Your task to perform on an android device: View the shopping cart on walmart. Add macbook air to the cart on walmart Image 0: 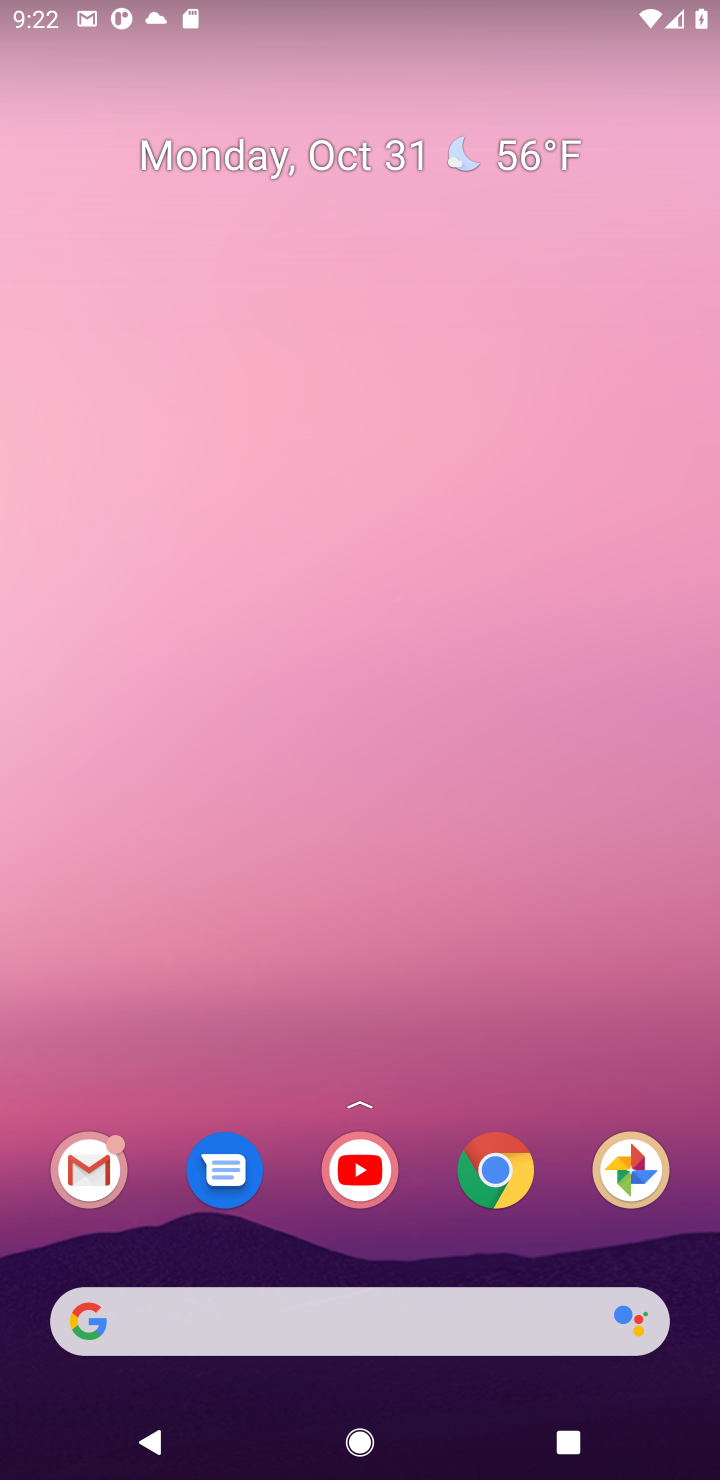
Step 0: click (513, 1203)
Your task to perform on an android device: View the shopping cart on walmart. Add macbook air to the cart on walmart Image 1: 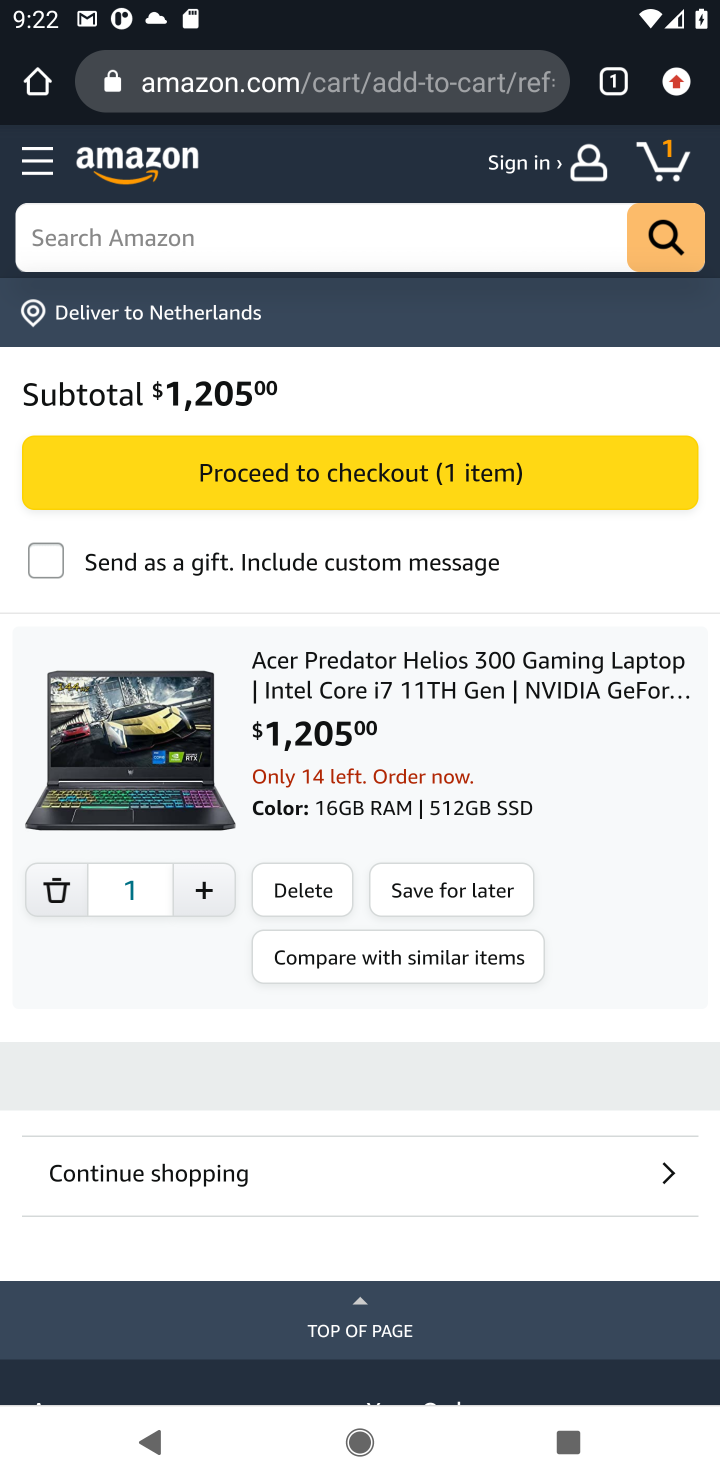
Step 1: click (194, 86)
Your task to perform on an android device: View the shopping cart on walmart. Add macbook air to the cart on walmart Image 2: 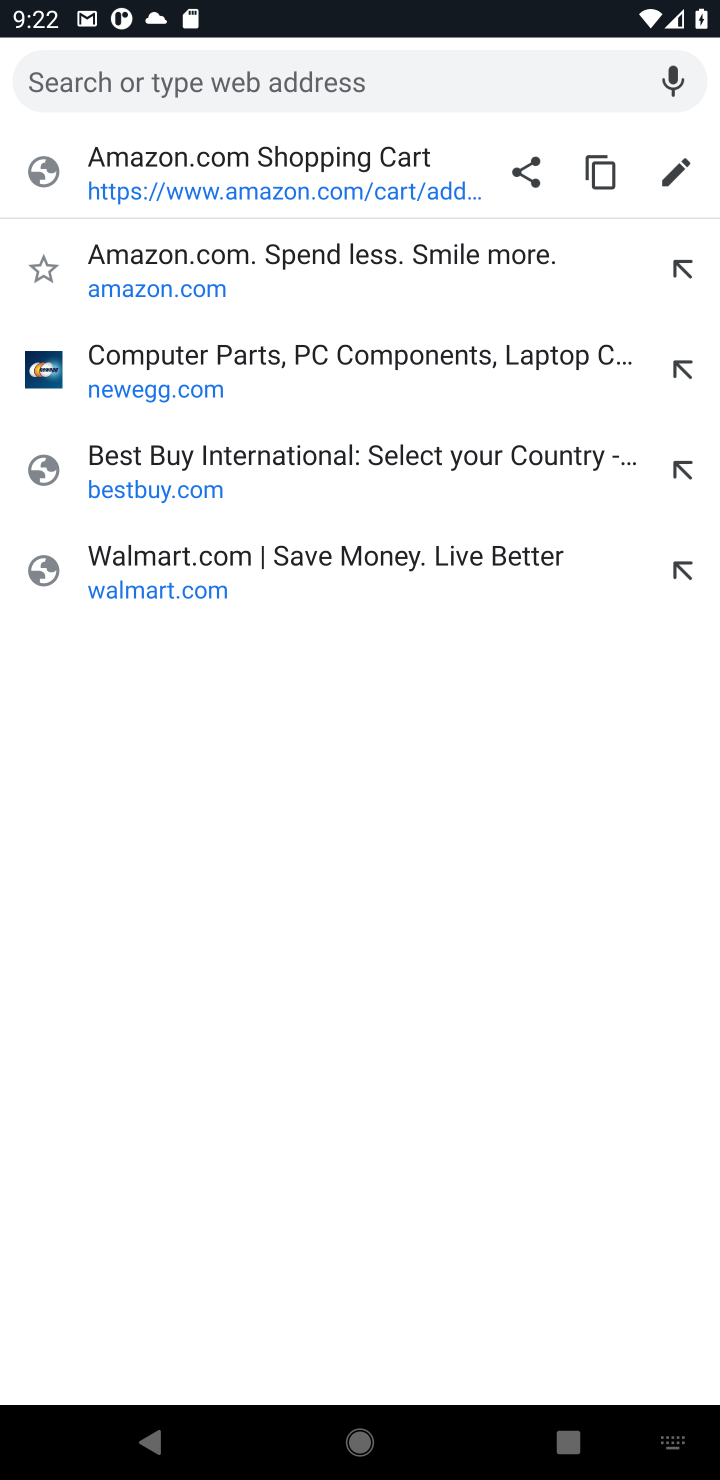
Step 2: type "walmart"
Your task to perform on an android device: View the shopping cart on walmart. Add macbook air to the cart on walmart Image 3: 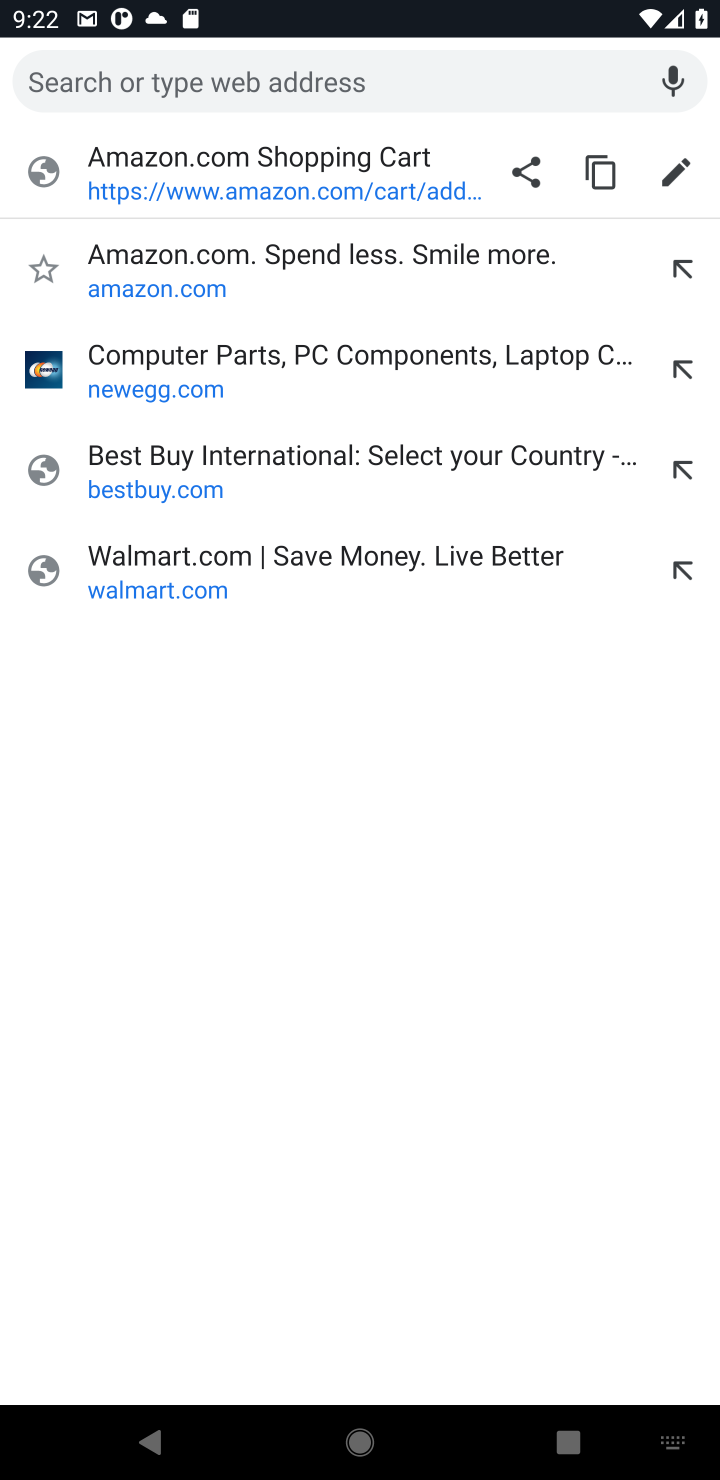
Step 3: click (109, 545)
Your task to perform on an android device: View the shopping cart on walmart. Add macbook air to the cart on walmart Image 4: 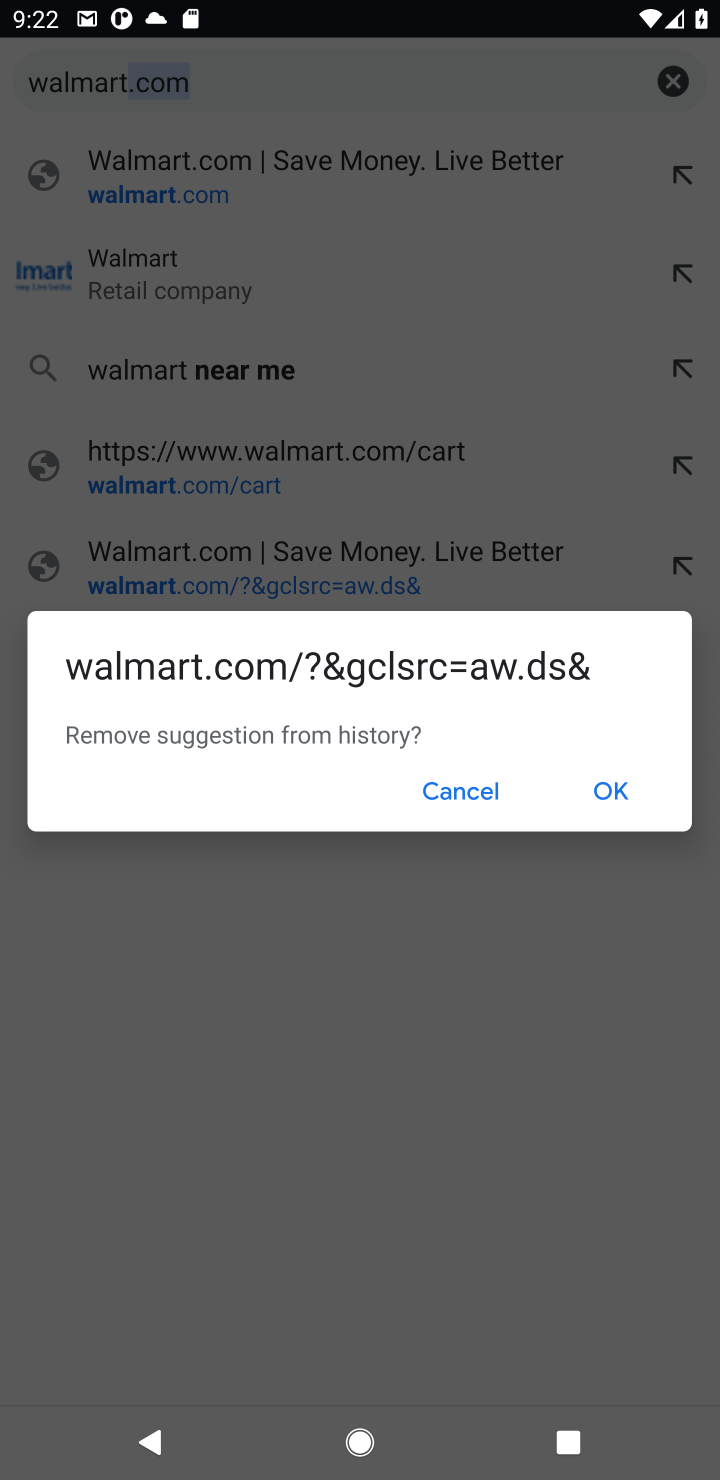
Step 4: click (477, 798)
Your task to perform on an android device: View the shopping cart on walmart. Add macbook air to the cart on walmart Image 5: 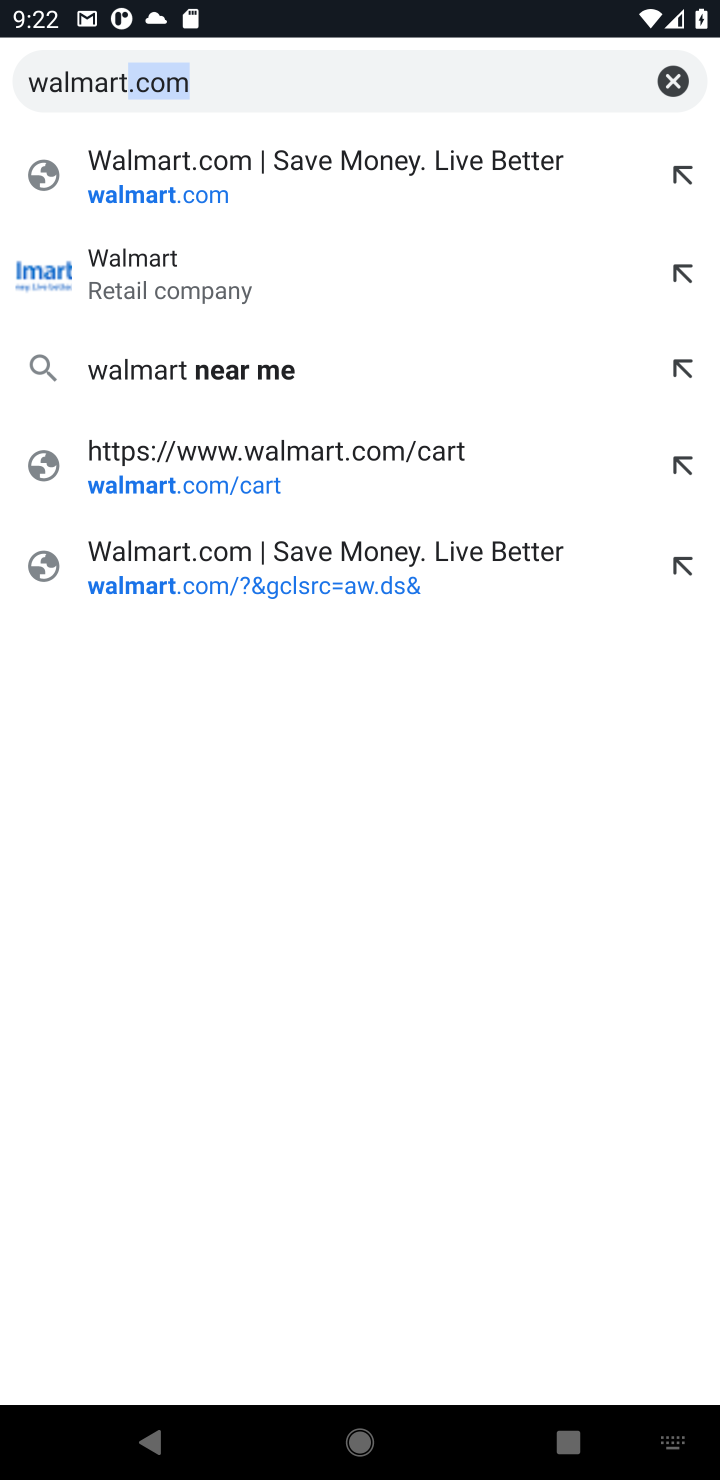
Step 5: click (118, 272)
Your task to perform on an android device: View the shopping cart on walmart. Add macbook air to the cart on walmart Image 6: 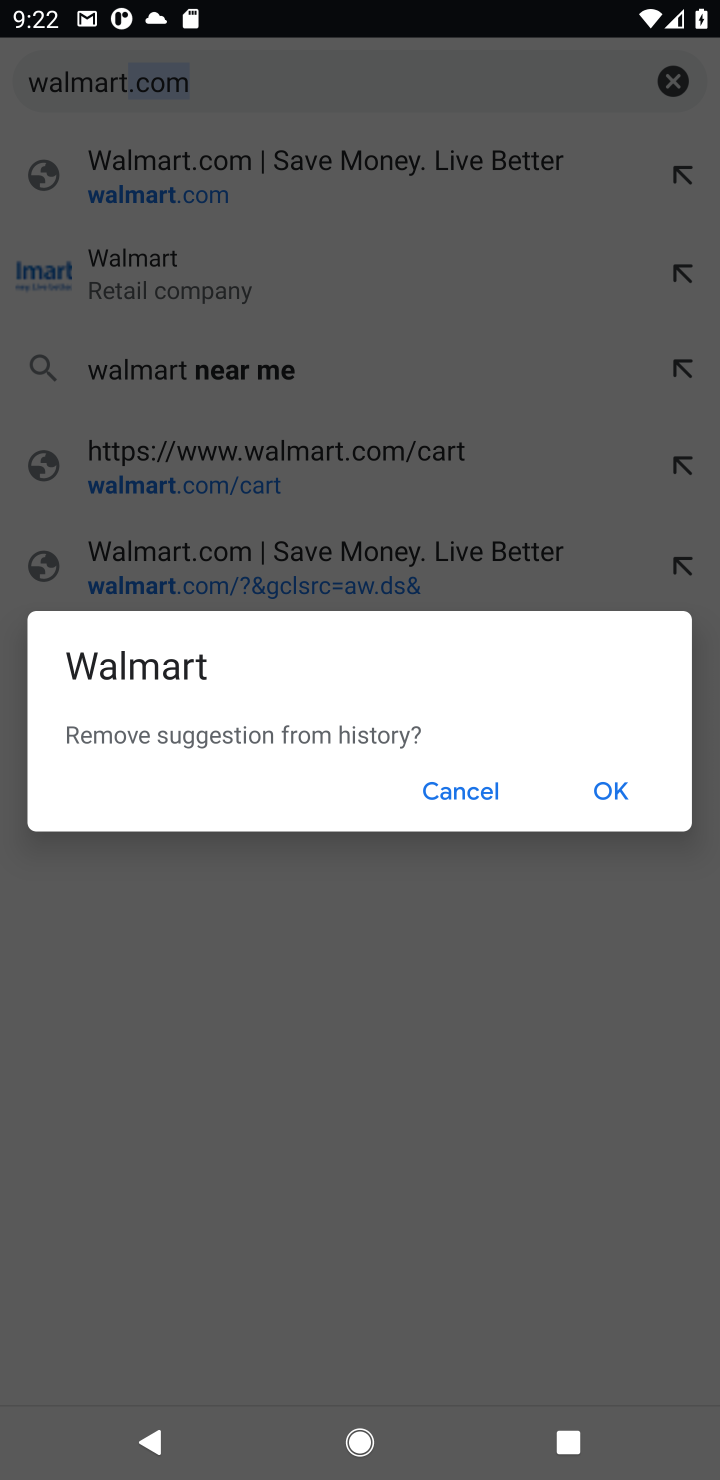
Step 6: click (456, 784)
Your task to perform on an android device: View the shopping cart on walmart. Add macbook air to the cart on walmart Image 7: 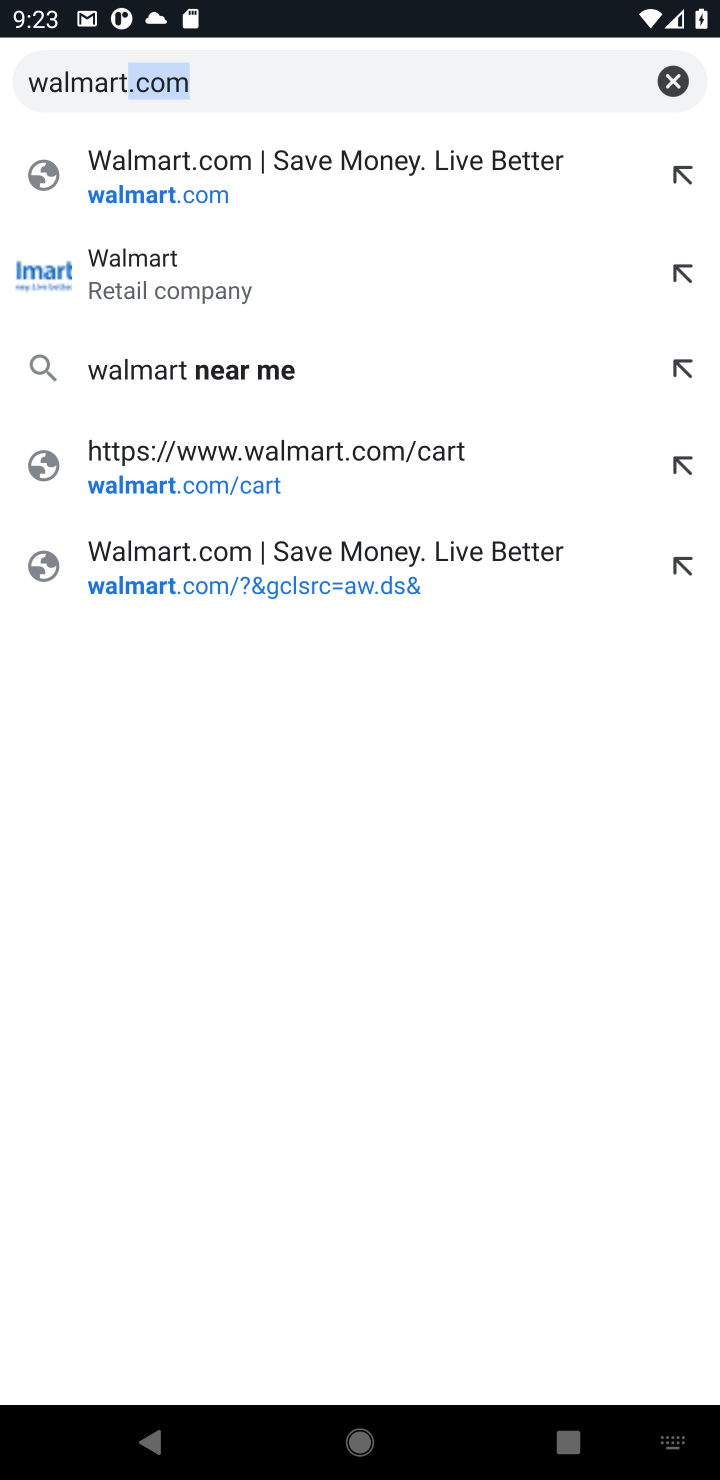
Step 7: click (278, 293)
Your task to perform on an android device: View the shopping cart on walmart. Add macbook air to the cart on walmart Image 8: 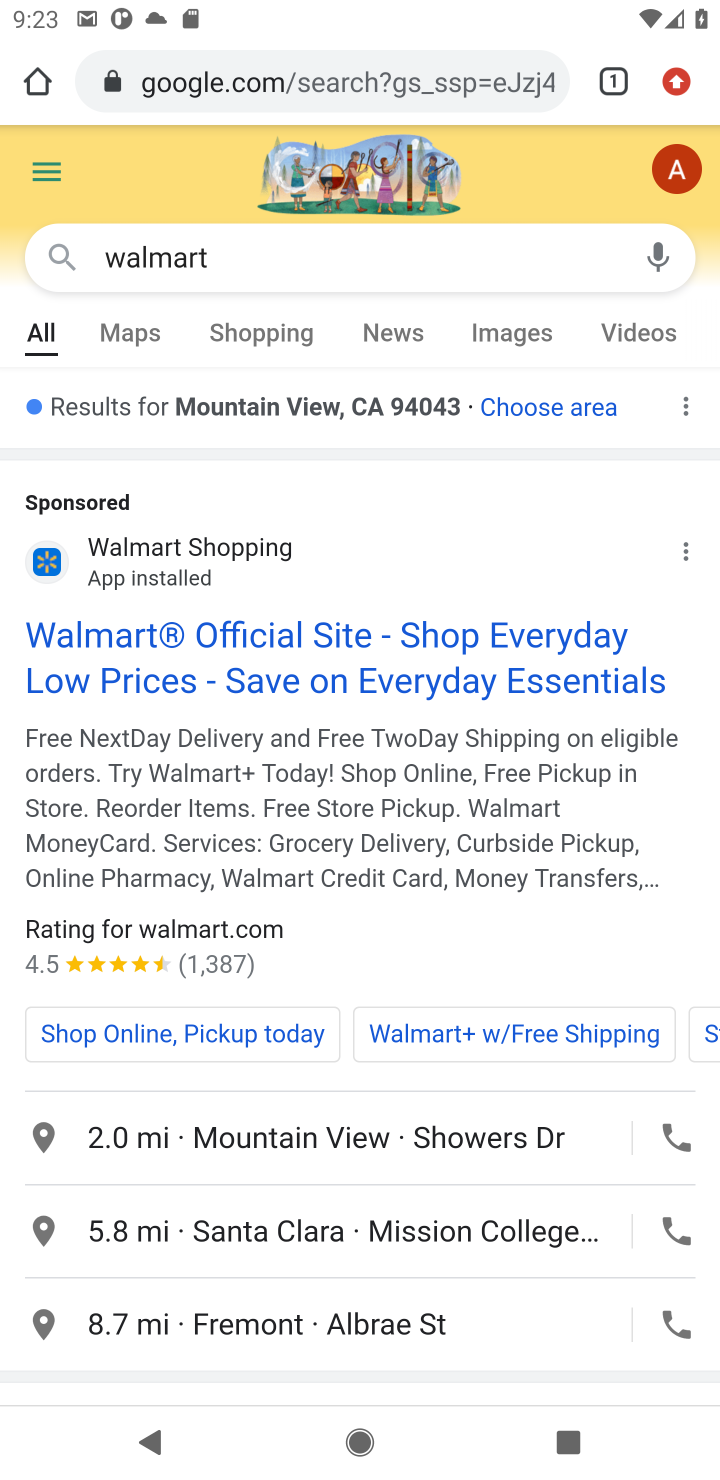
Step 8: click (291, 687)
Your task to perform on an android device: View the shopping cart on walmart. Add macbook air to the cart on walmart Image 9: 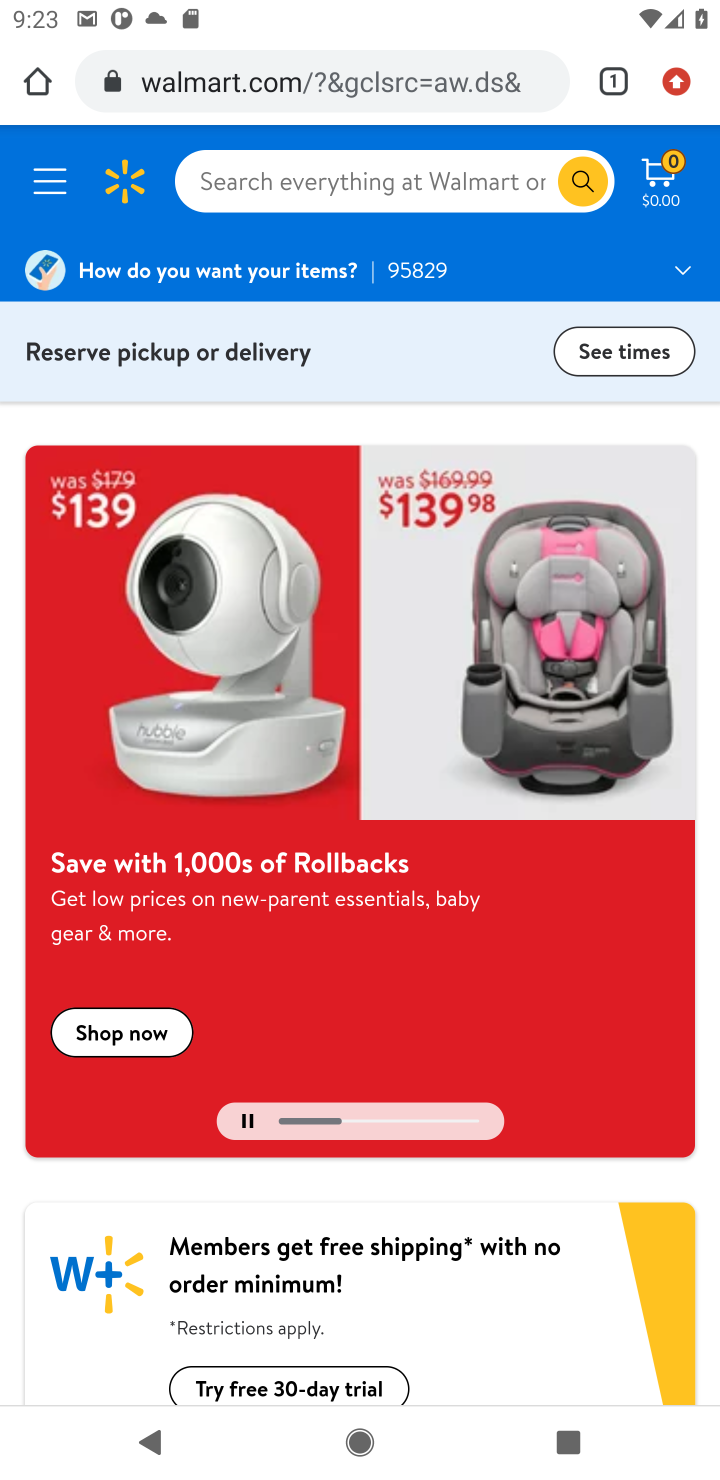
Step 9: click (652, 185)
Your task to perform on an android device: View the shopping cart on walmart. Add macbook air to the cart on walmart Image 10: 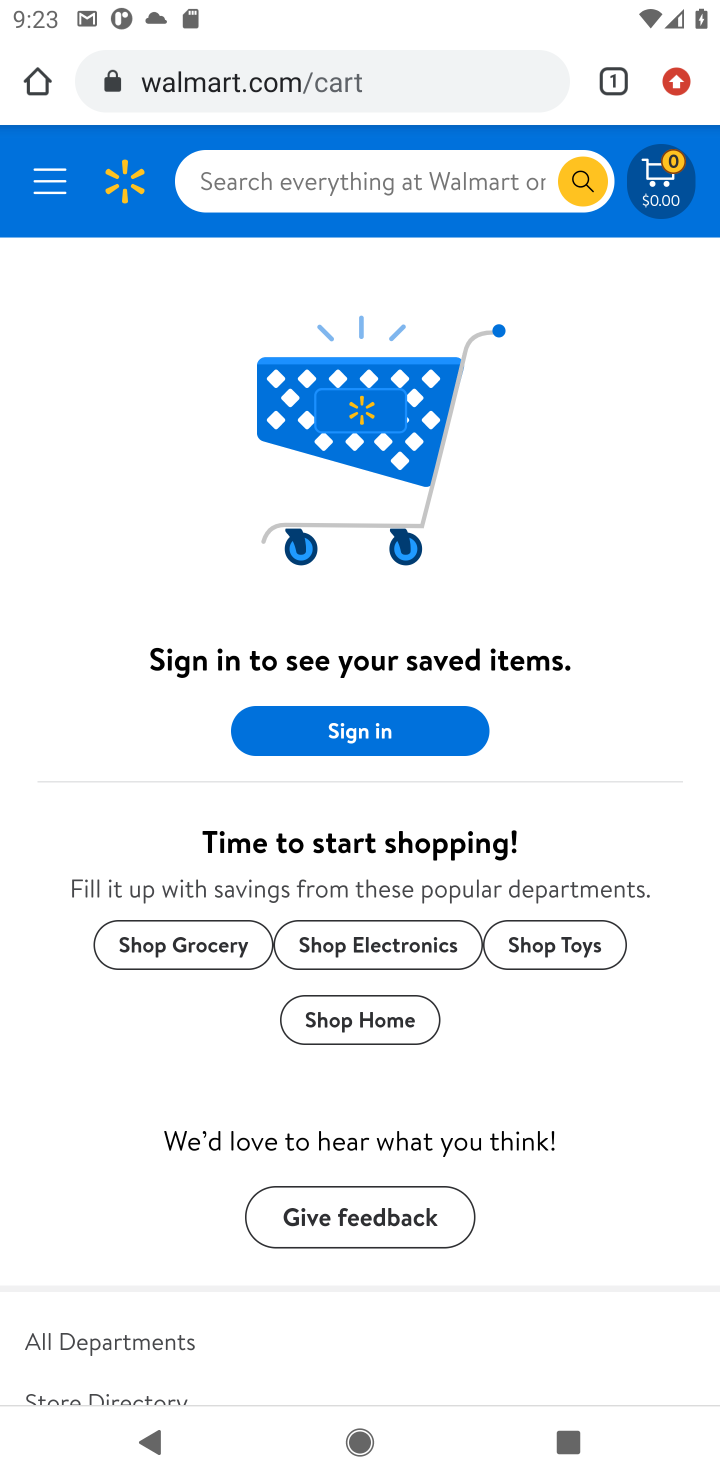
Step 10: click (401, 184)
Your task to perform on an android device: View the shopping cart on walmart. Add macbook air to the cart on walmart Image 11: 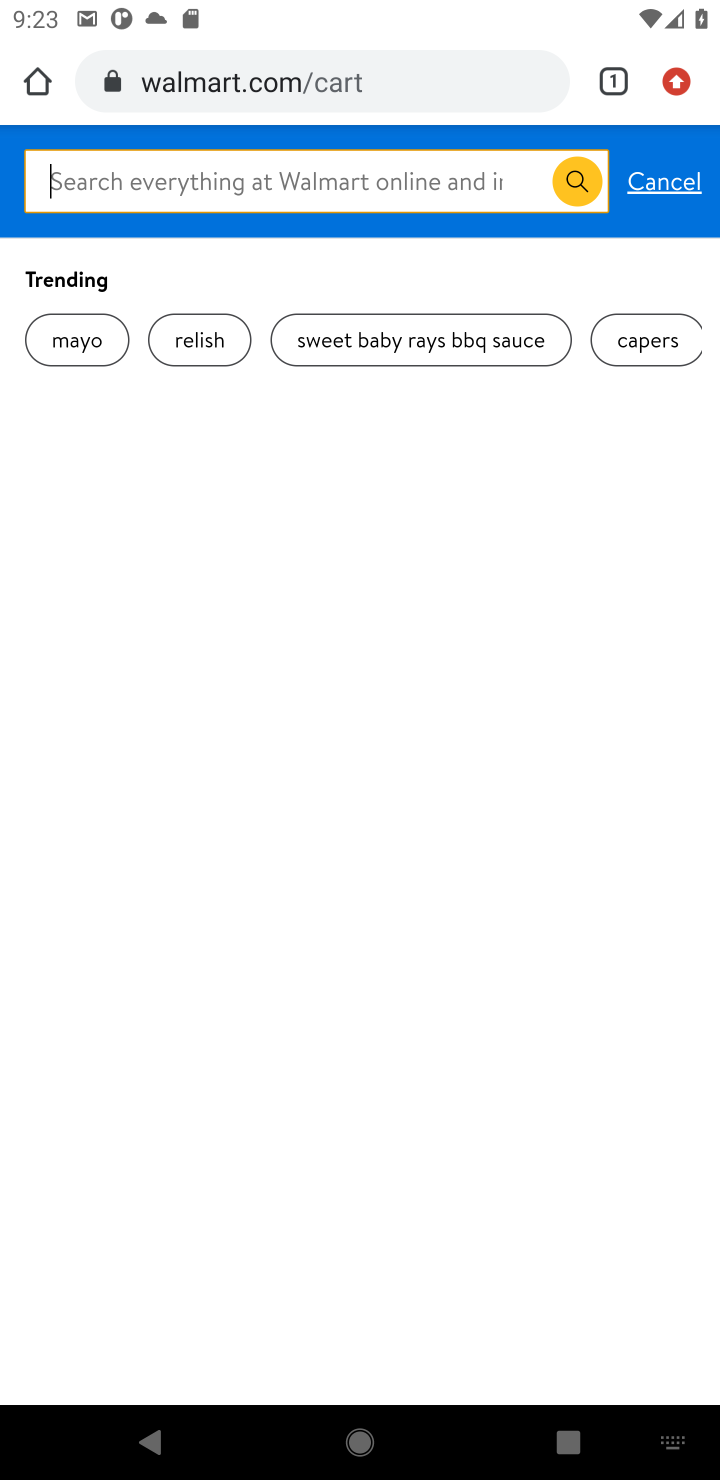
Step 11: type "macbook air"
Your task to perform on an android device: View the shopping cart on walmart. Add macbook air to the cart on walmart Image 12: 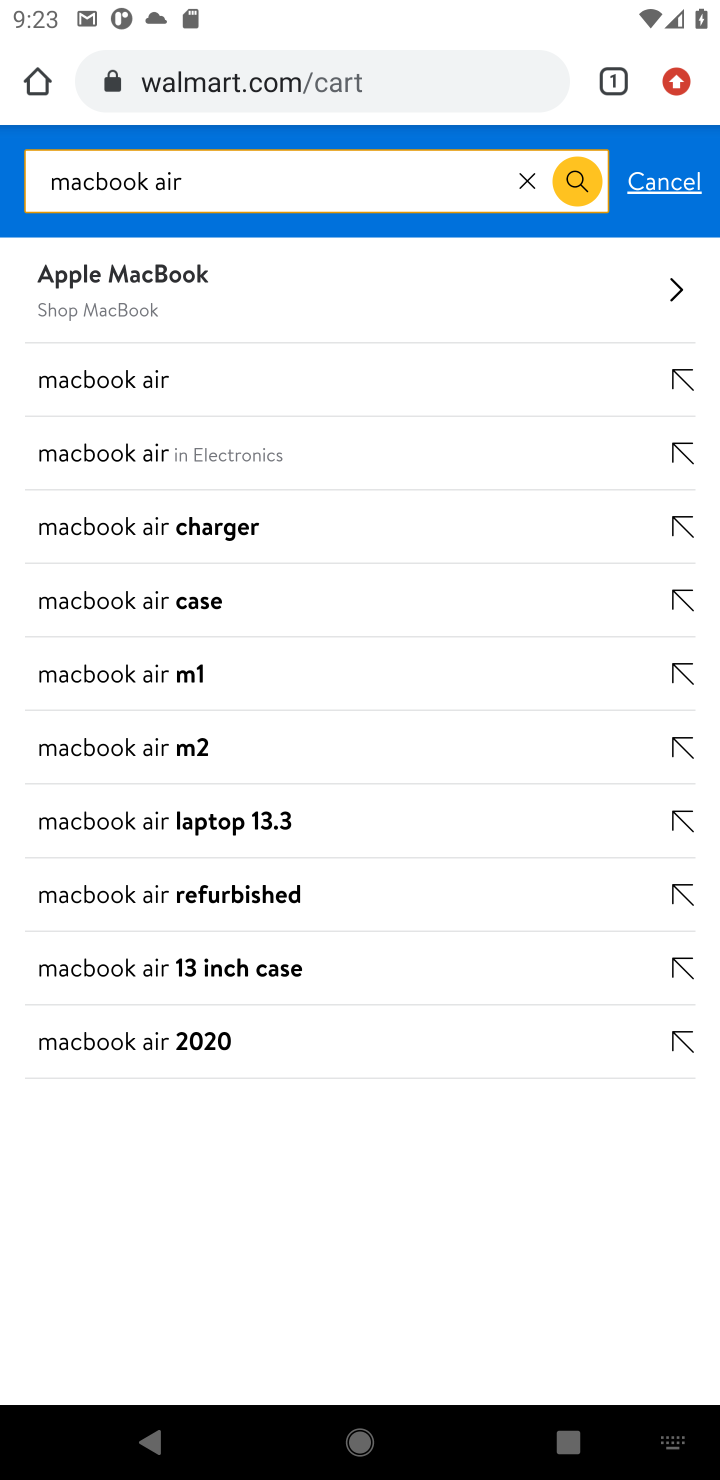
Step 12: click (488, 389)
Your task to perform on an android device: View the shopping cart on walmart. Add macbook air to the cart on walmart Image 13: 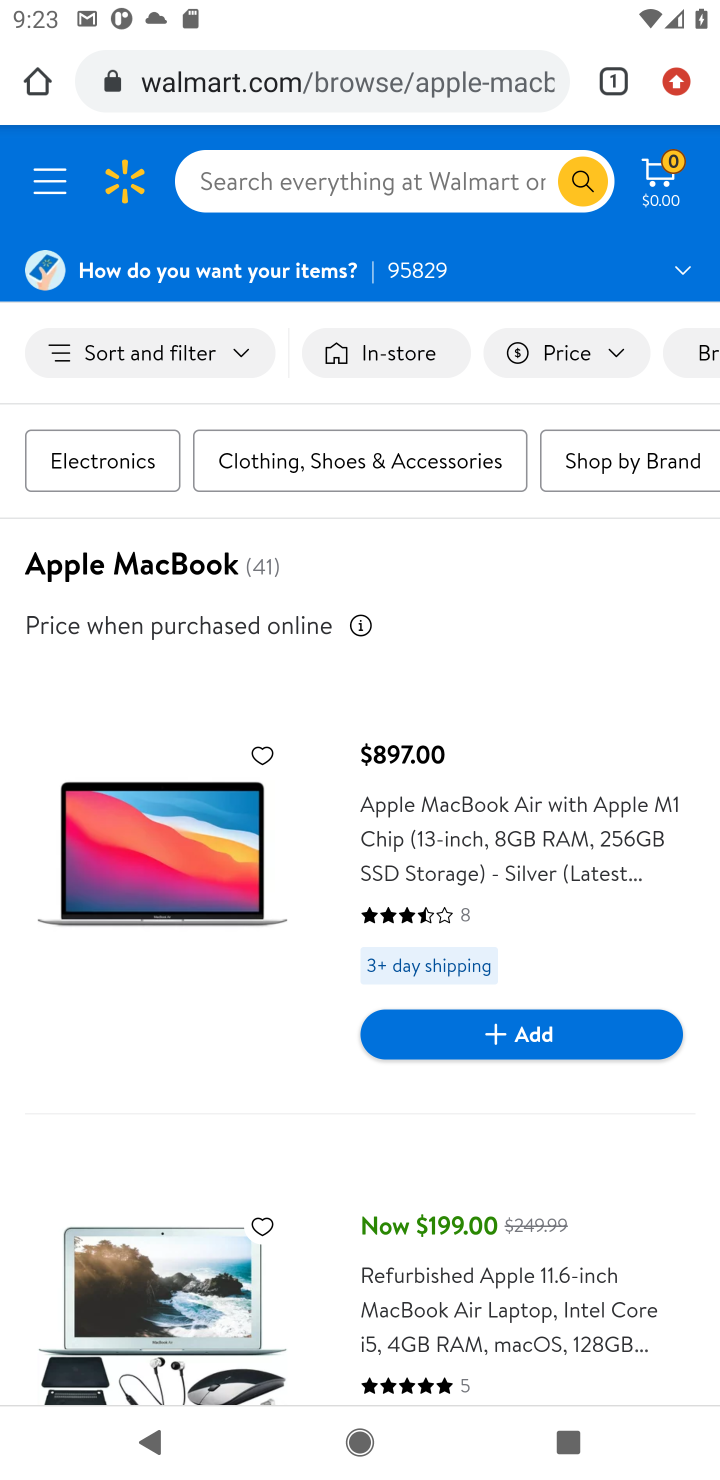
Step 13: click (571, 1021)
Your task to perform on an android device: View the shopping cart on walmart. Add macbook air to the cart on walmart Image 14: 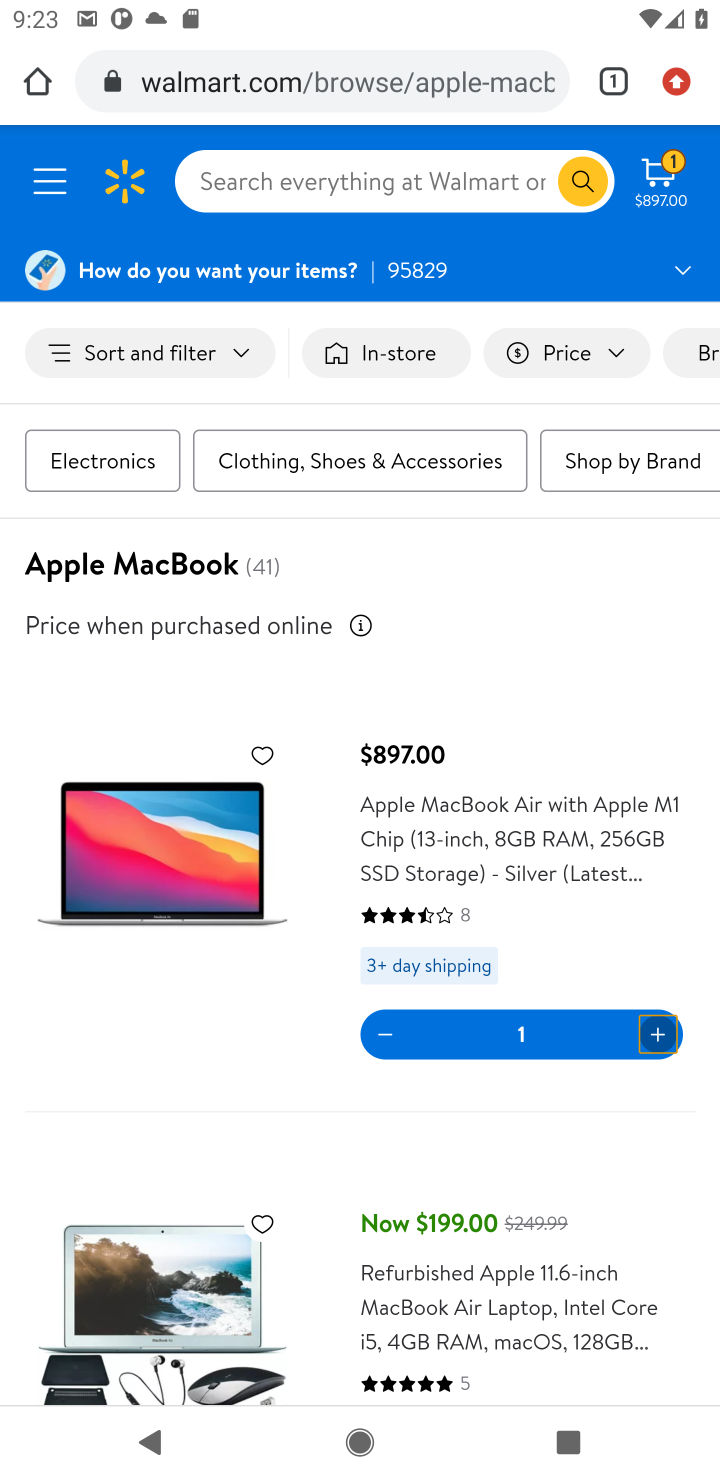
Step 14: task complete